Your task to perform on an android device: Search for "asus zenbook" on amazon.com, select the first entry, and add it to the cart. Image 0: 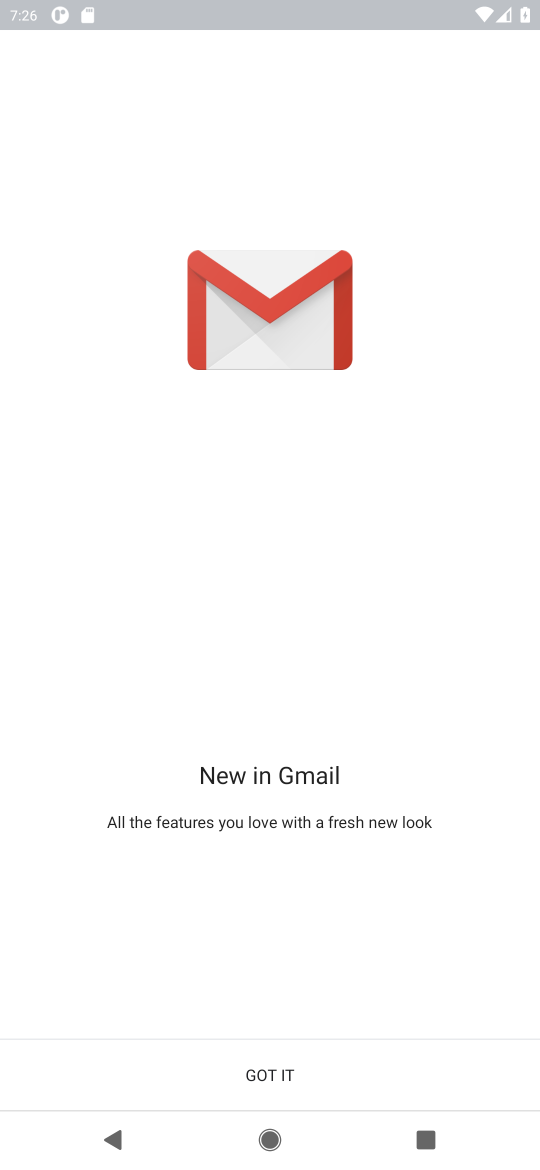
Step 0: press home button
Your task to perform on an android device: Search for "asus zenbook" on amazon.com, select the first entry, and add it to the cart. Image 1: 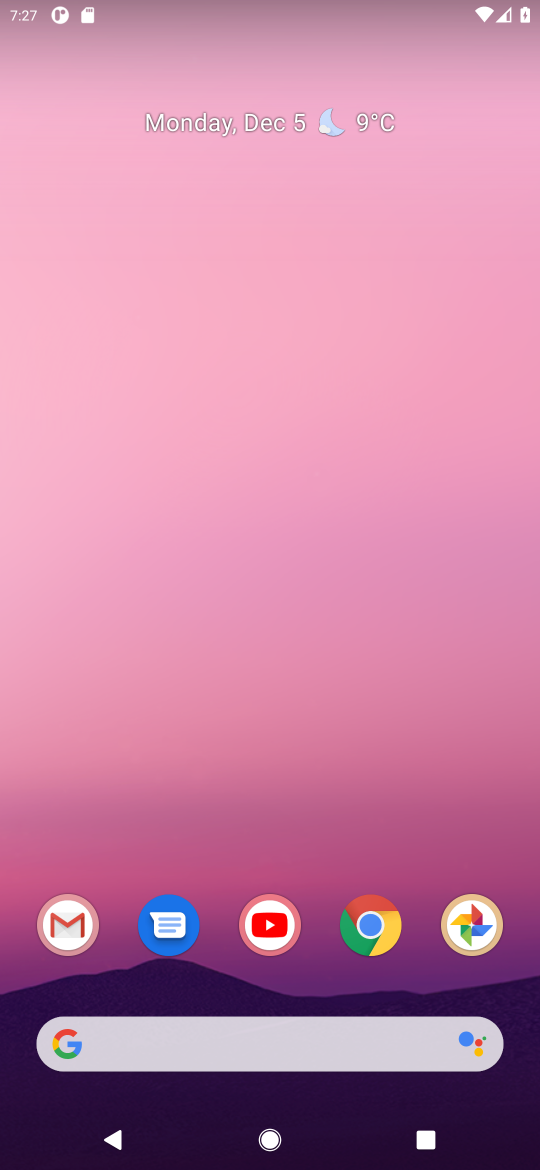
Step 1: click (379, 934)
Your task to perform on an android device: Search for "asus zenbook" on amazon.com, select the first entry, and add it to the cart. Image 2: 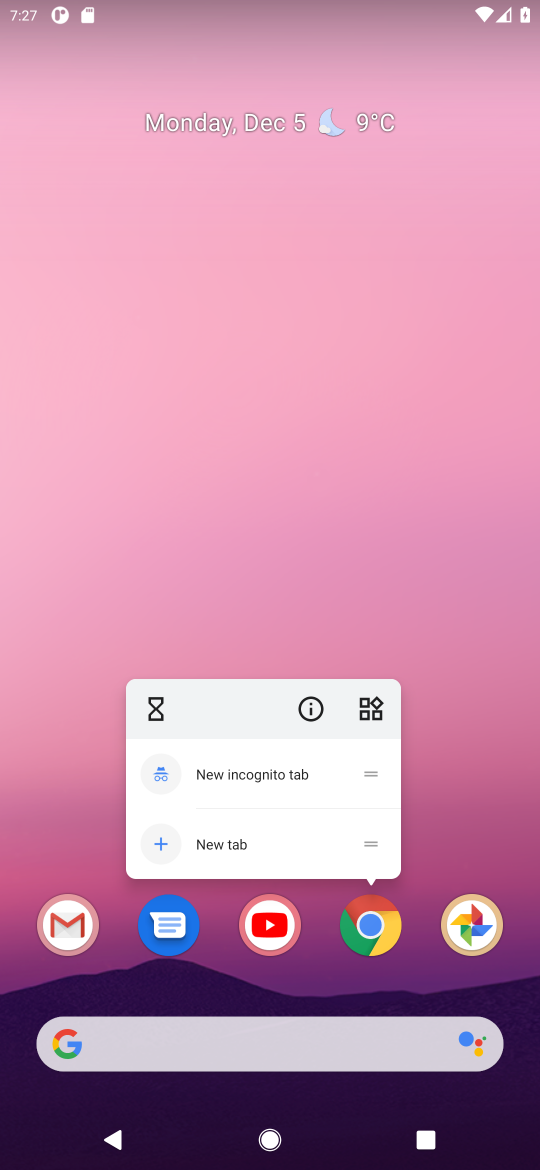
Step 2: click (370, 940)
Your task to perform on an android device: Search for "asus zenbook" on amazon.com, select the first entry, and add it to the cart. Image 3: 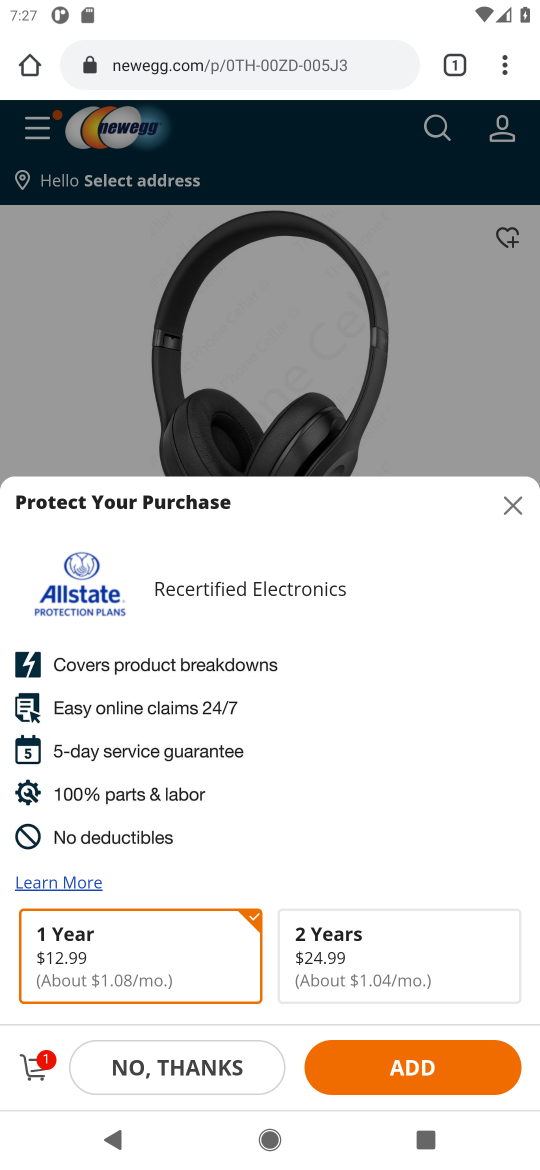
Step 3: click (161, 59)
Your task to perform on an android device: Search for "asus zenbook" on amazon.com, select the first entry, and add it to the cart. Image 4: 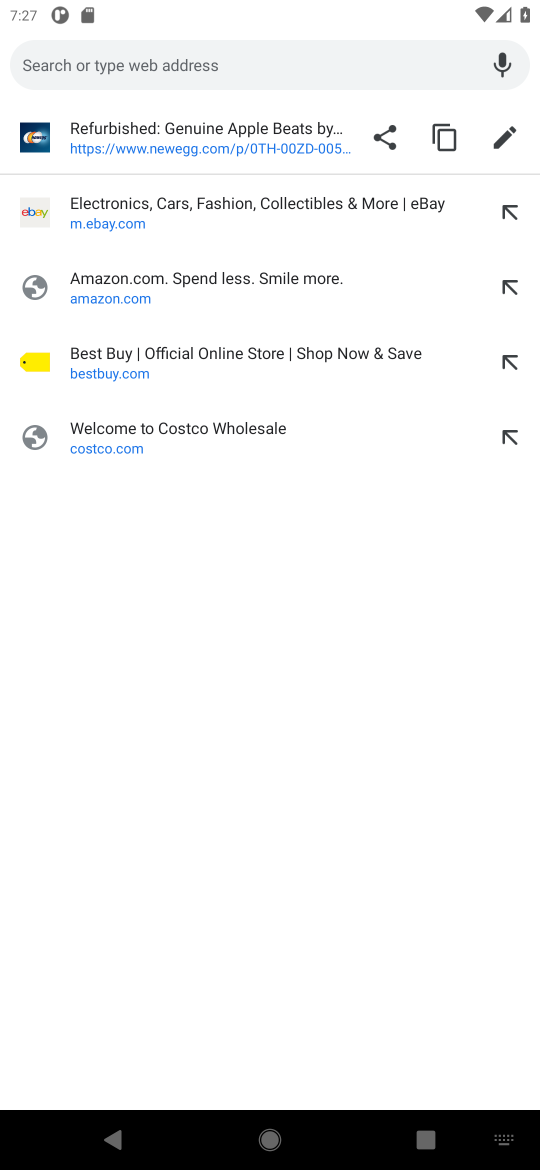
Step 4: click (82, 279)
Your task to perform on an android device: Search for "asus zenbook" on amazon.com, select the first entry, and add it to the cart. Image 5: 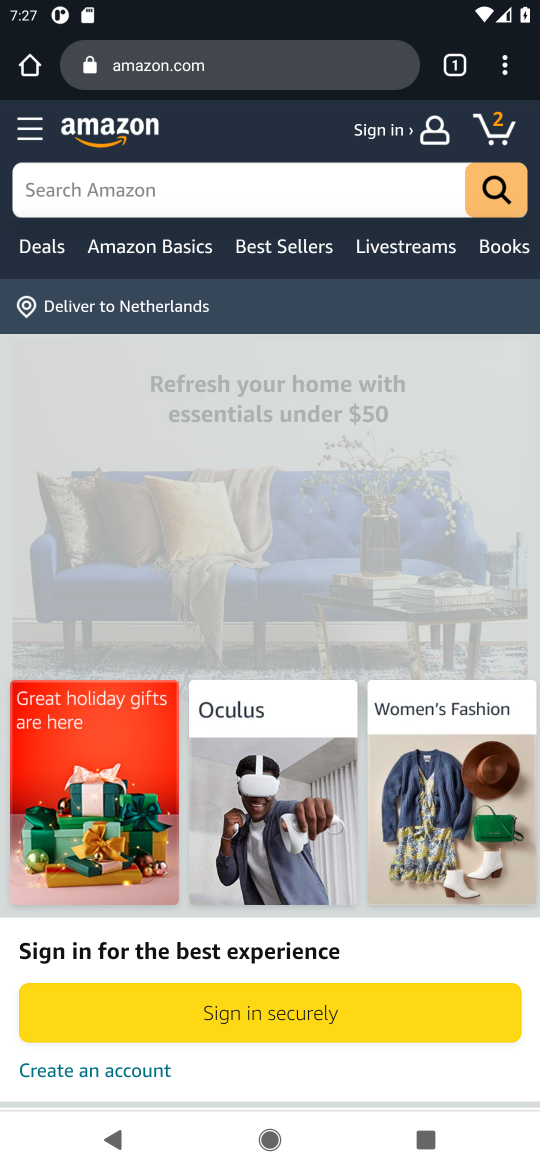
Step 5: click (127, 186)
Your task to perform on an android device: Search for "asus zenbook" on amazon.com, select the first entry, and add it to the cart. Image 6: 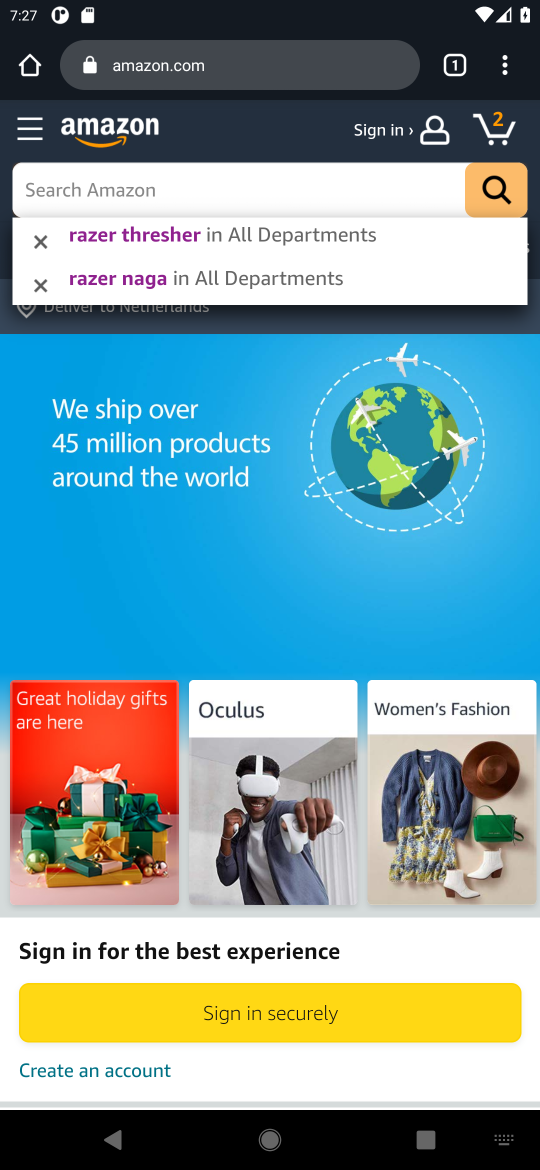
Step 6: type "asus zenbook"
Your task to perform on an android device: Search for "asus zenbook" on amazon.com, select the first entry, and add it to the cart. Image 7: 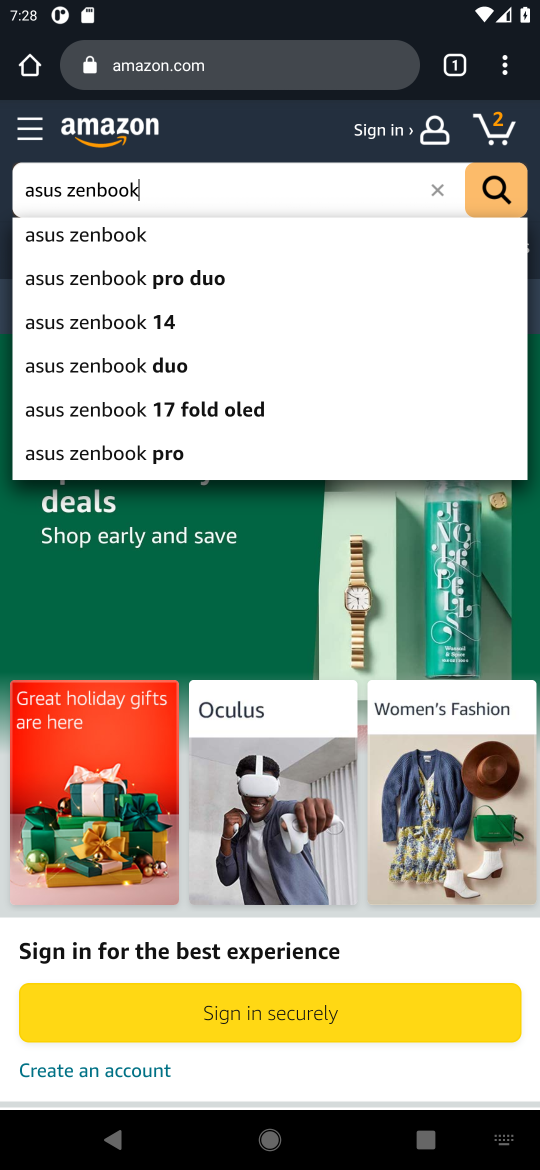
Step 7: click (58, 239)
Your task to perform on an android device: Search for "asus zenbook" on amazon.com, select the first entry, and add it to the cart. Image 8: 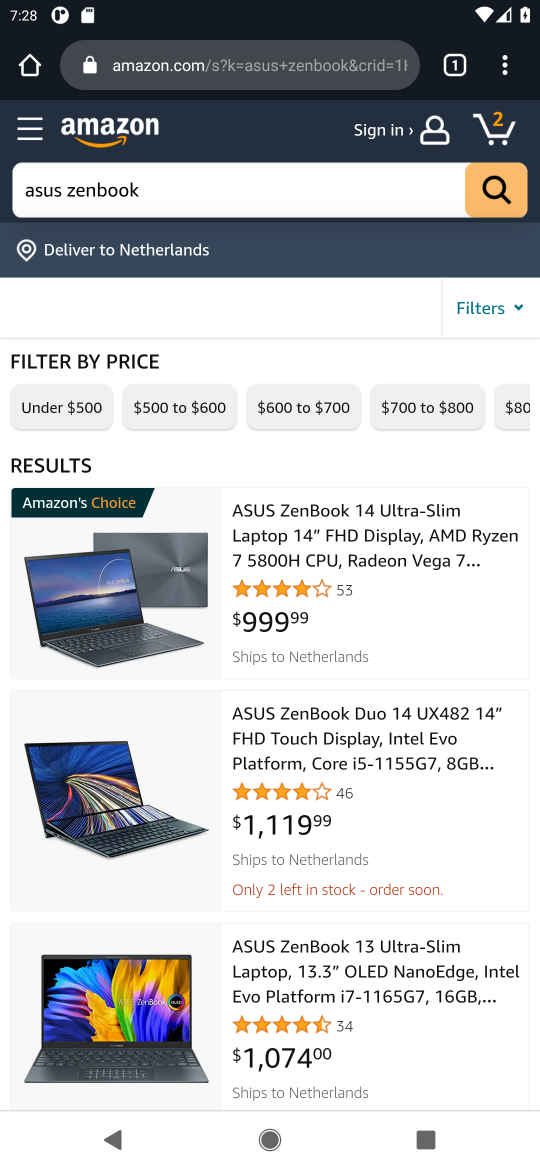
Step 8: click (310, 561)
Your task to perform on an android device: Search for "asus zenbook" on amazon.com, select the first entry, and add it to the cart. Image 9: 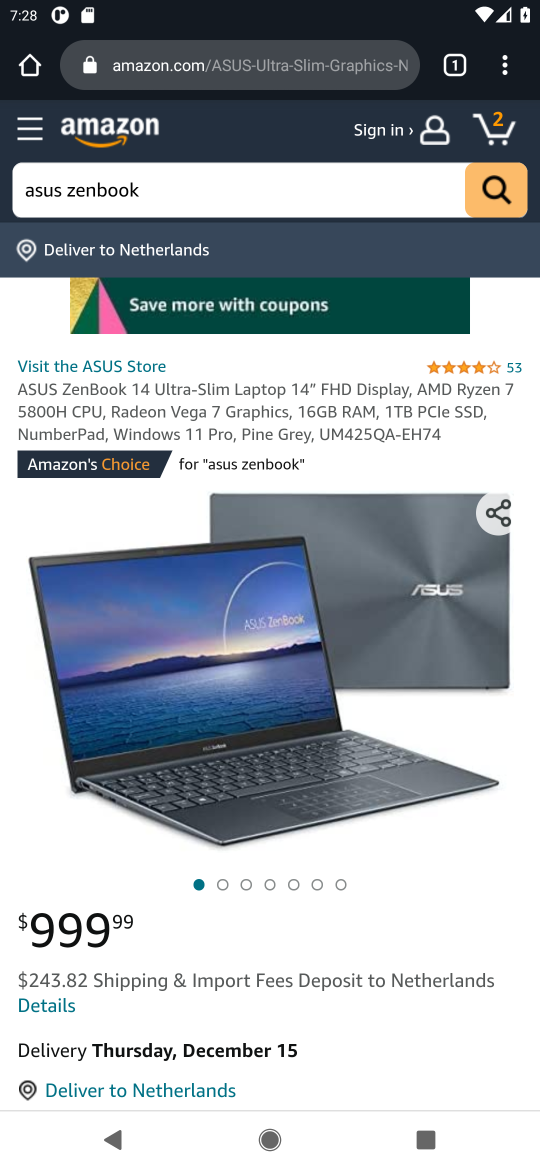
Step 9: drag from (275, 919) to (288, 453)
Your task to perform on an android device: Search for "asus zenbook" on amazon.com, select the first entry, and add it to the cart. Image 10: 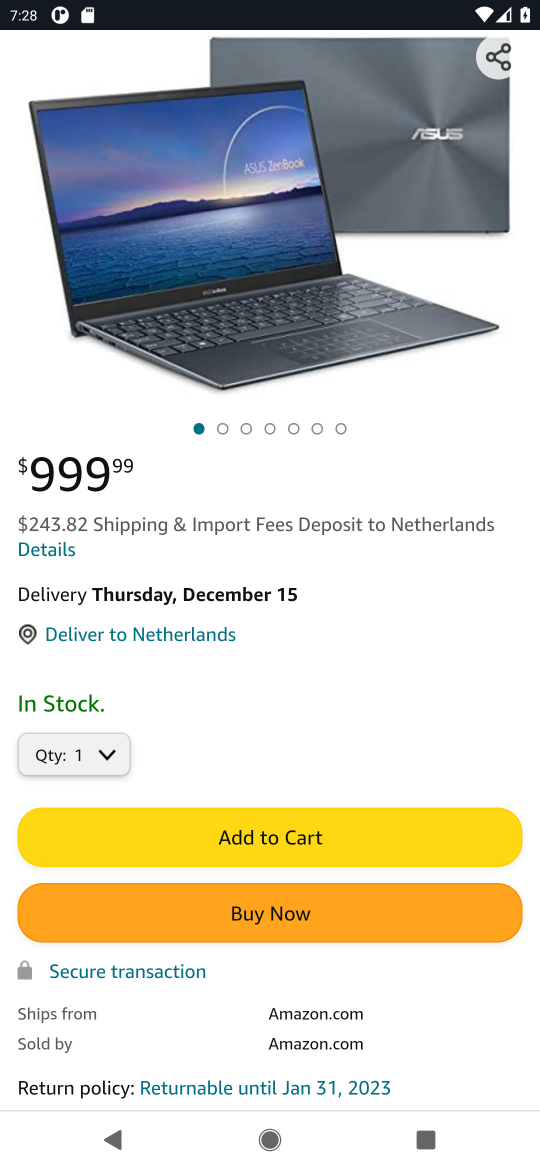
Step 10: click (262, 827)
Your task to perform on an android device: Search for "asus zenbook" on amazon.com, select the first entry, and add it to the cart. Image 11: 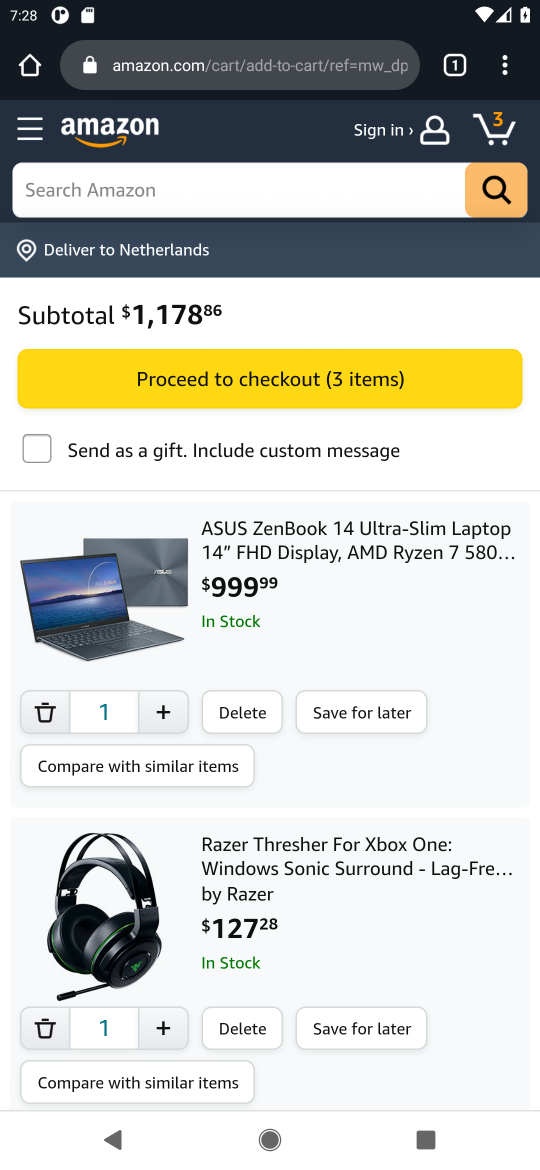
Step 11: task complete